Your task to perform on an android device: turn off location history Image 0: 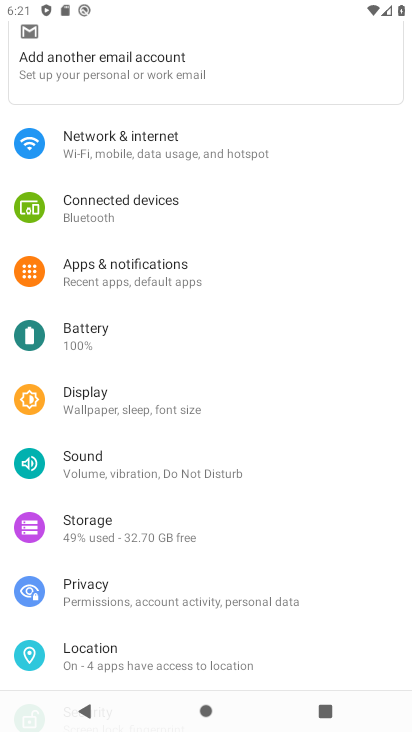
Step 0: press home button
Your task to perform on an android device: turn off location history Image 1: 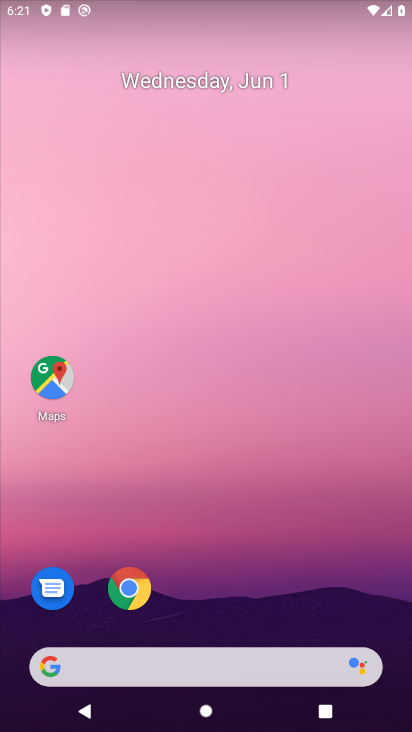
Step 1: click (216, 269)
Your task to perform on an android device: turn off location history Image 2: 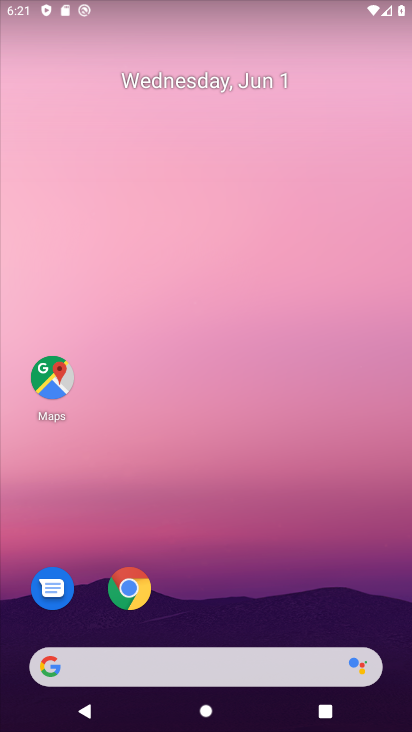
Step 2: drag from (169, 601) to (210, 344)
Your task to perform on an android device: turn off location history Image 3: 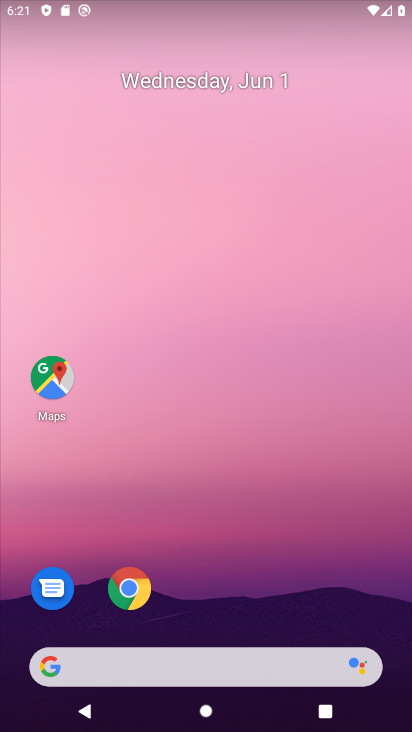
Step 3: drag from (207, 628) to (208, 222)
Your task to perform on an android device: turn off location history Image 4: 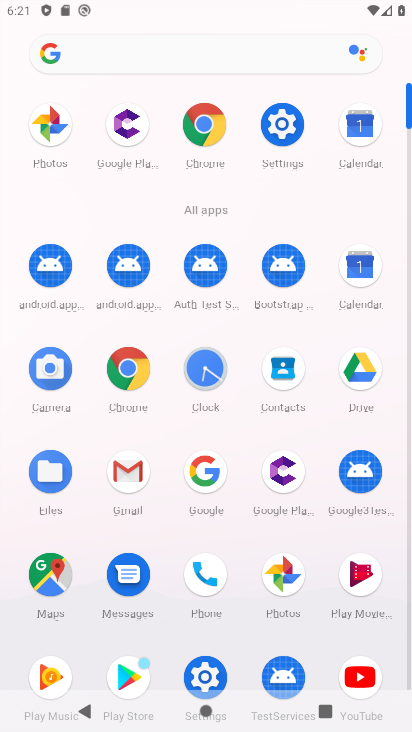
Step 4: click (205, 674)
Your task to perform on an android device: turn off location history Image 5: 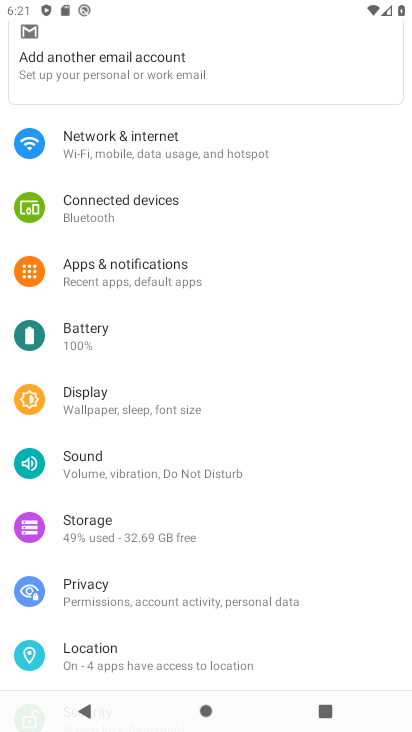
Step 5: click (96, 665)
Your task to perform on an android device: turn off location history Image 6: 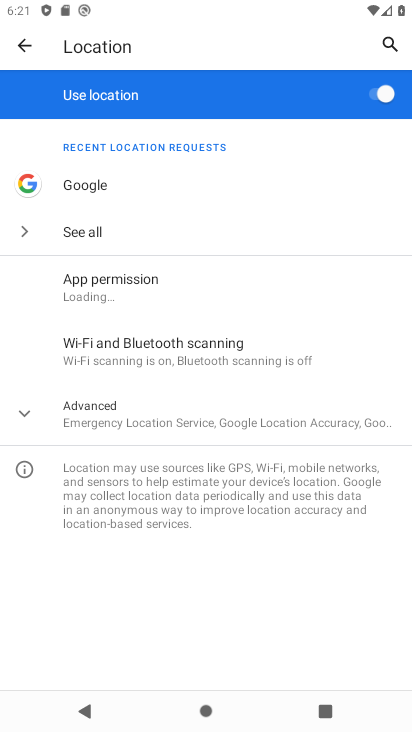
Step 6: click (95, 418)
Your task to perform on an android device: turn off location history Image 7: 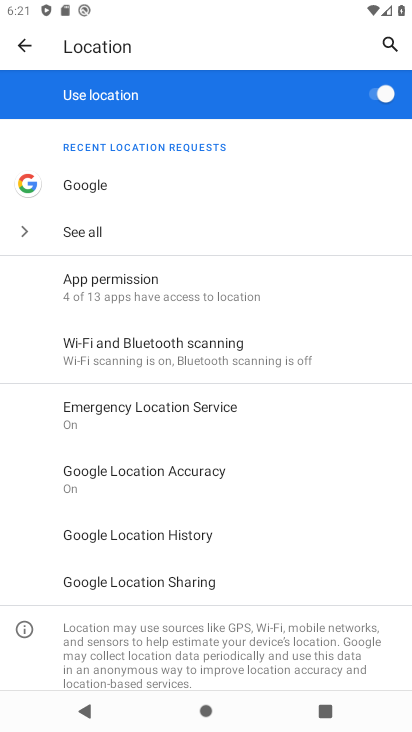
Step 7: click (163, 543)
Your task to perform on an android device: turn off location history Image 8: 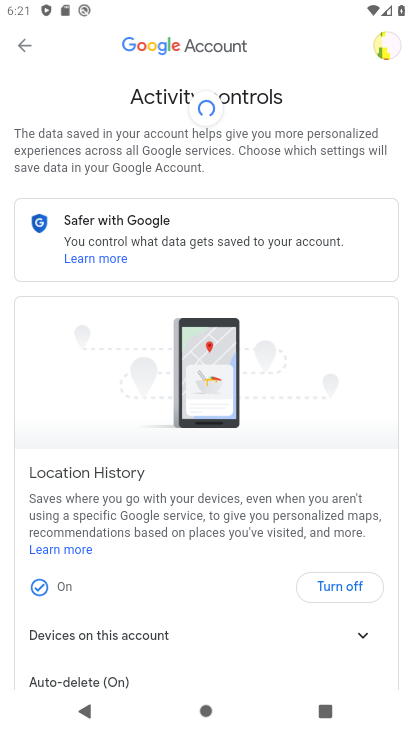
Step 8: click (332, 586)
Your task to perform on an android device: turn off location history Image 9: 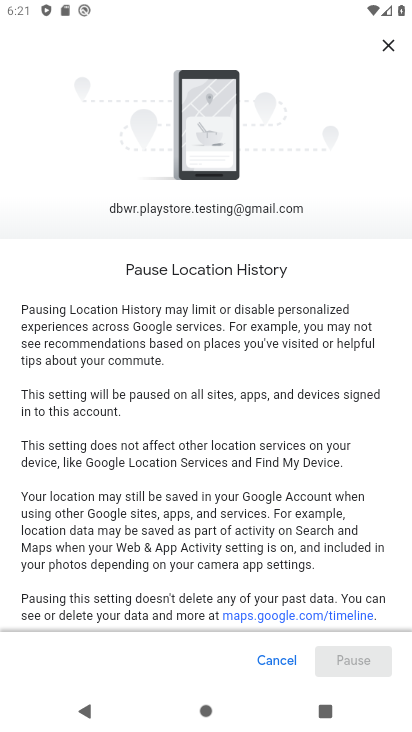
Step 9: drag from (238, 567) to (259, 253)
Your task to perform on an android device: turn off location history Image 10: 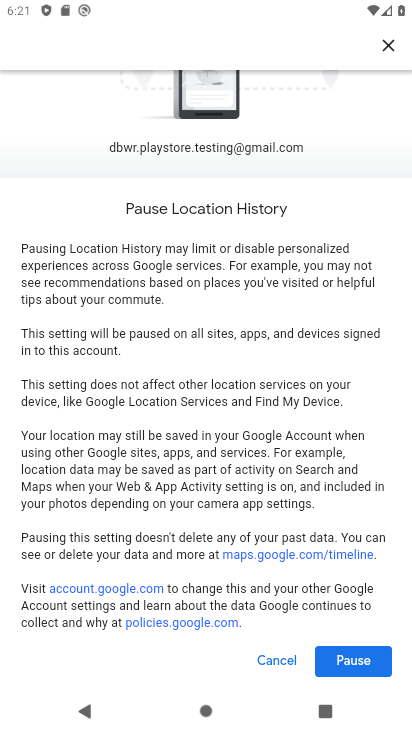
Step 10: click (337, 657)
Your task to perform on an android device: turn off location history Image 11: 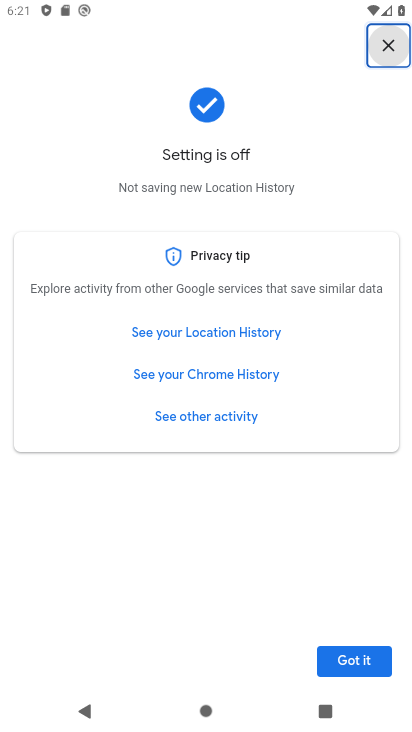
Step 11: click (333, 672)
Your task to perform on an android device: turn off location history Image 12: 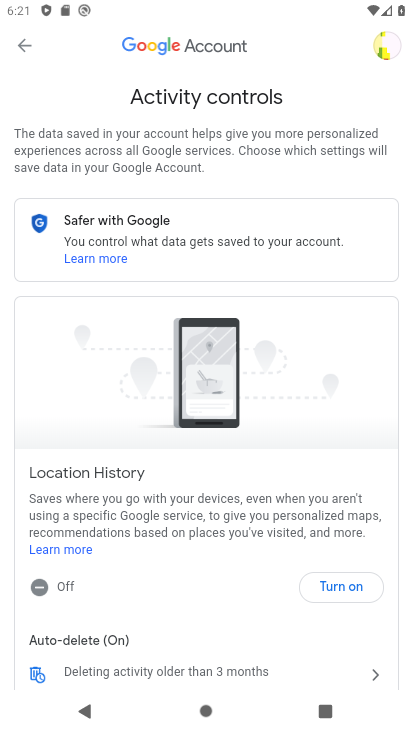
Step 12: task complete